Your task to perform on an android device: check google app version Image 0: 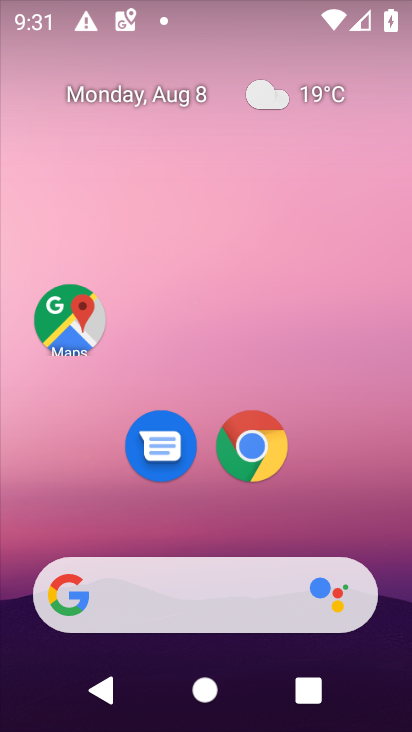
Step 0: click (248, 446)
Your task to perform on an android device: check google app version Image 1: 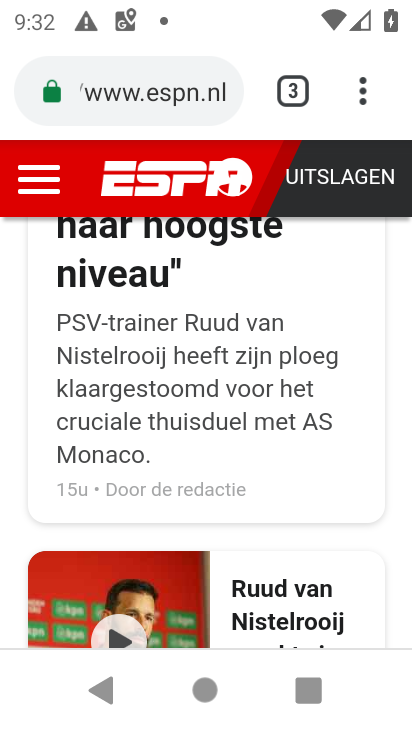
Step 1: click (352, 107)
Your task to perform on an android device: check google app version Image 2: 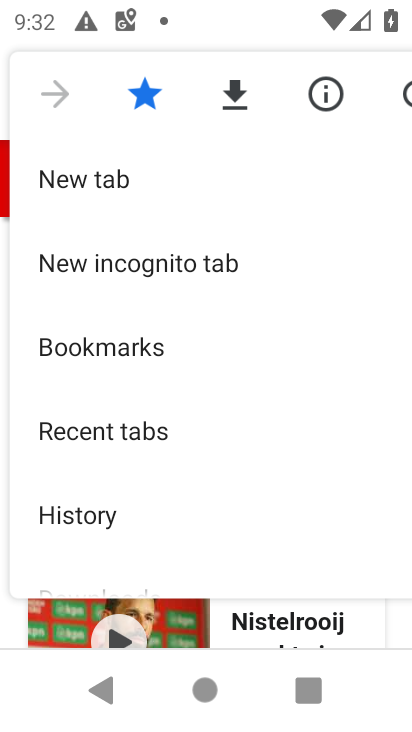
Step 2: drag from (204, 500) to (220, 151)
Your task to perform on an android device: check google app version Image 3: 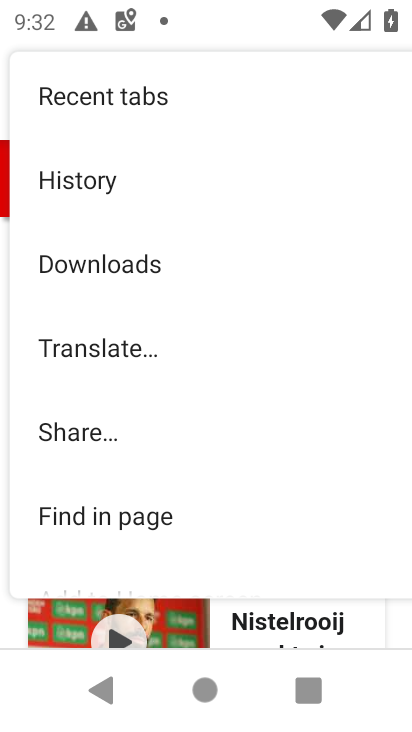
Step 3: drag from (175, 511) to (190, 172)
Your task to perform on an android device: check google app version Image 4: 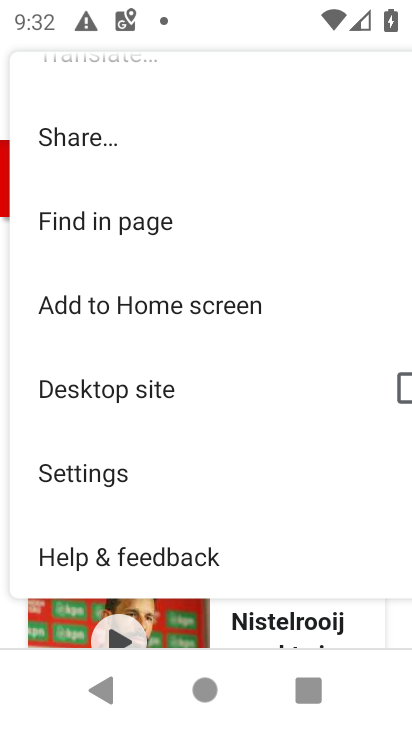
Step 4: click (76, 481)
Your task to perform on an android device: check google app version Image 5: 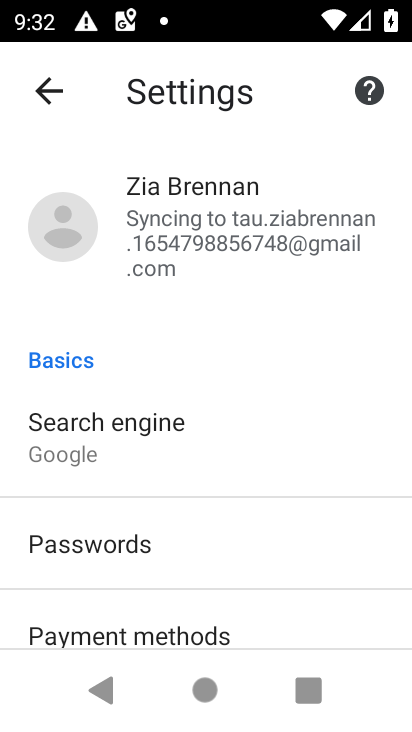
Step 5: drag from (213, 603) to (234, 258)
Your task to perform on an android device: check google app version Image 6: 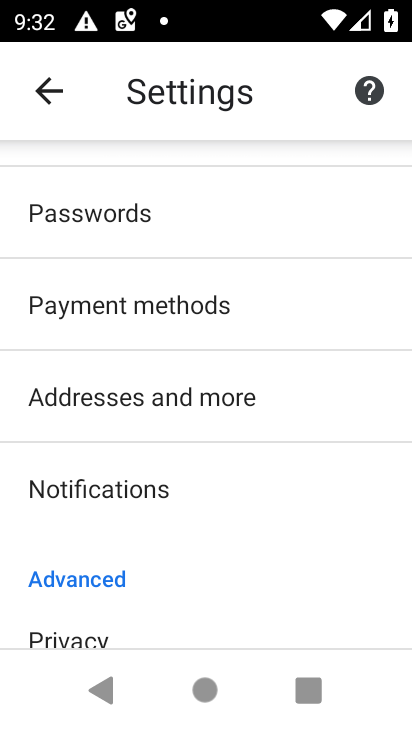
Step 6: drag from (205, 580) to (209, 242)
Your task to perform on an android device: check google app version Image 7: 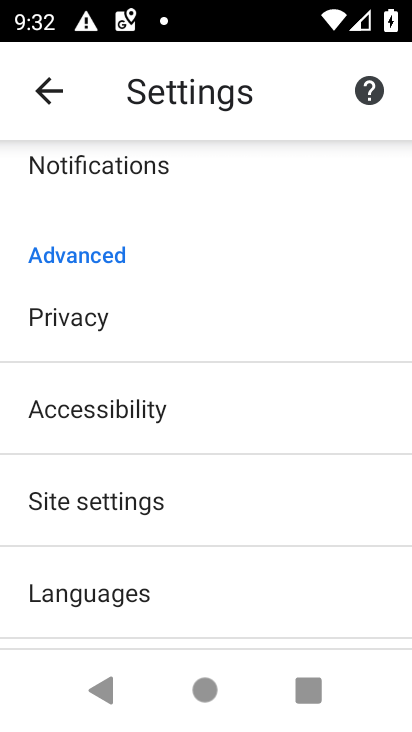
Step 7: drag from (197, 575) to (204, 257)
Your task to perform on an android device: check google app version Image 8: 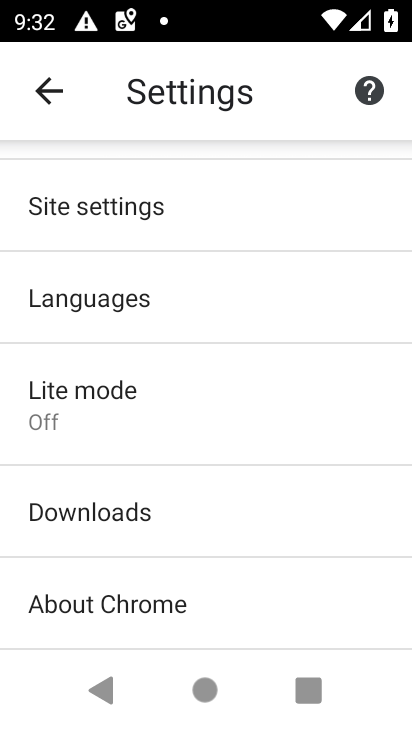
Step 8: click (111, 605)
Your task to perform on an android device: check google app version Image 9: 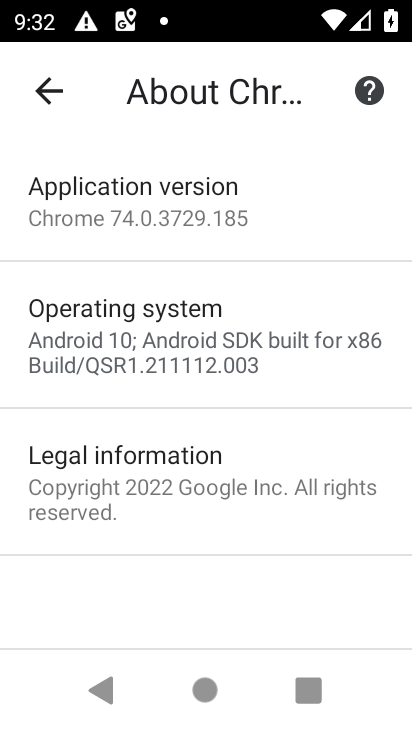
Step 9: task complete